Your task to perform on an android device: Is it going to rain this weekend? Image 0: 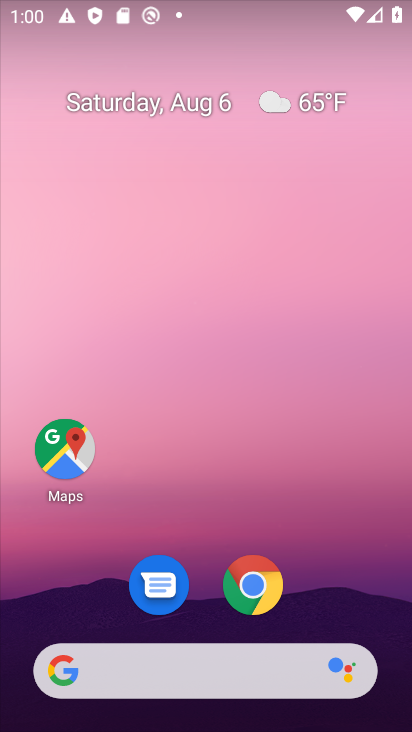
Step 0: drag from (315, 573) to (303, 5)
Your task to perform on an android device: Is it going to rain this weekend? Image 1: 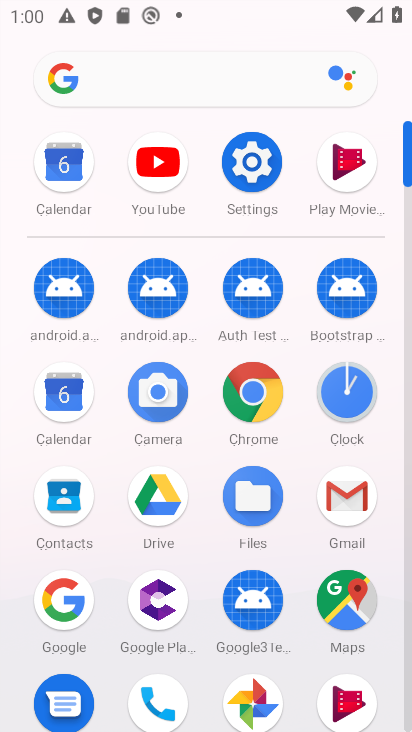
Step 1: click (220, 79)
Your task to perform on an android device: Is it going to rain this weekend? Image 2: 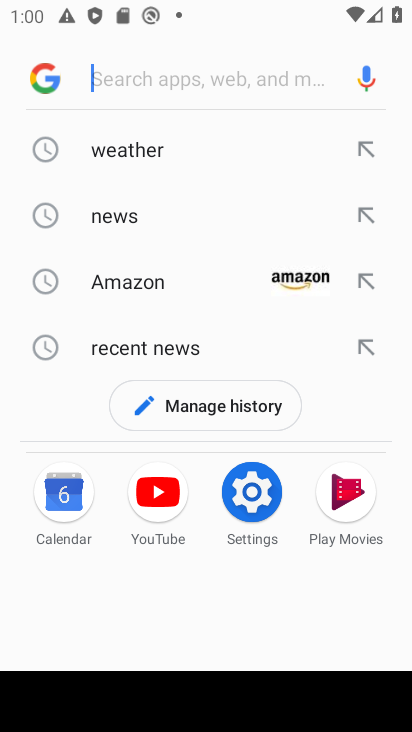
Step 2: click (153, 146)
Your task to perform on an android device: Is it going to rain this weekend? Image 3: 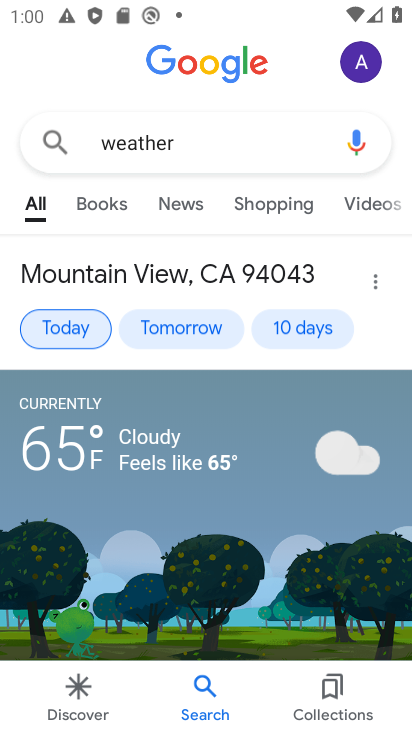
Step 3: click (293, 327)
Your task to perform on an android device: Is it going to rain this weekend? Image 4: 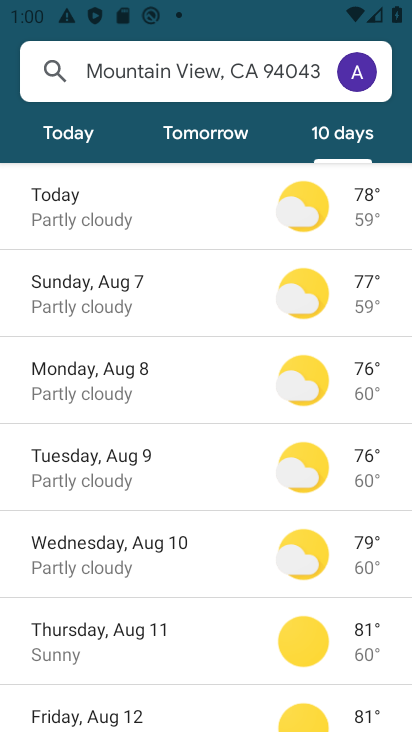
Step 4: click (108, 206)
Your task to perform on an android device: Is it going to rain this weekend? Image 5: 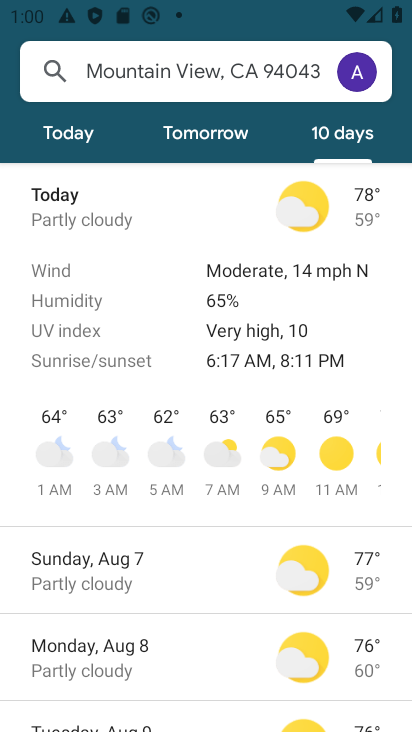
Step 5: task complete